Your task to perform on an android device: turn off translation in the chrome app Image 0: 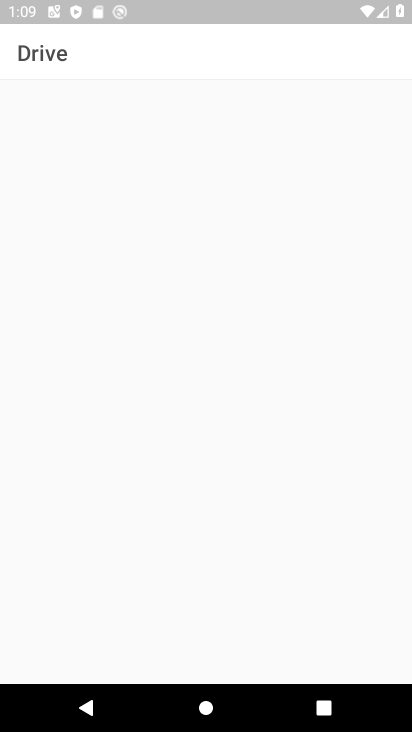
Step 0: press home button
Your task to perform on an android device: turn off translation in the chrome app Image 1: 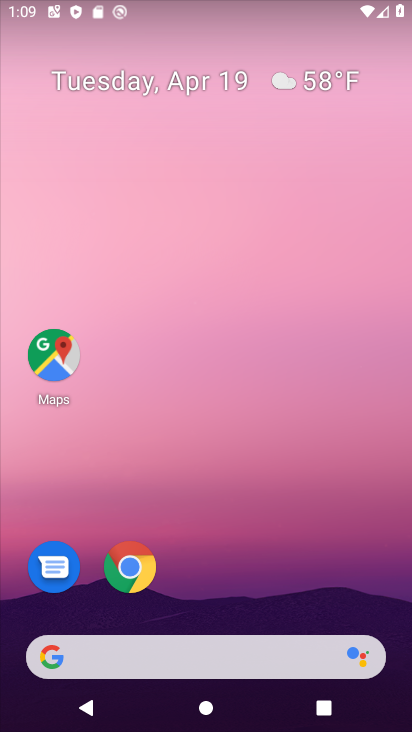
Step 1: click (130, 563)
Your task to perform on an android device: turn off translation in the chrome app Image 2: 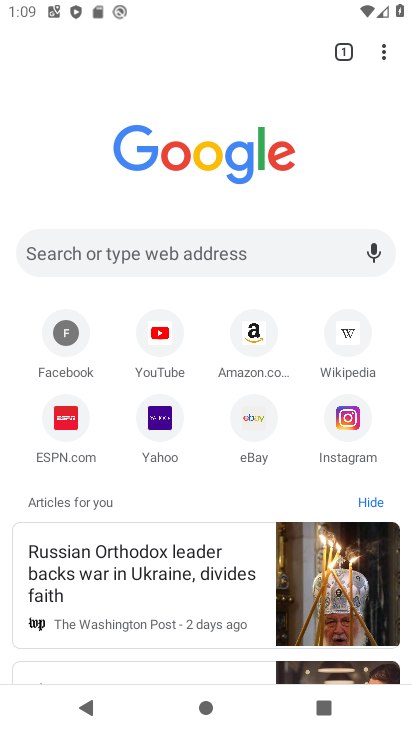
Step 2: click (386, 49)
Your task to perform on an android device: turn off translation in the chrome app Image 3: 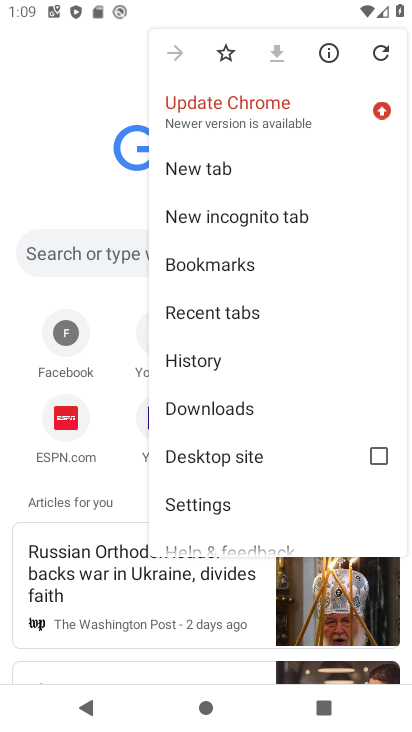
Step 3: click (220, 515)
Your task to perform on an android device: turn off translation in the chrome app Image 4: 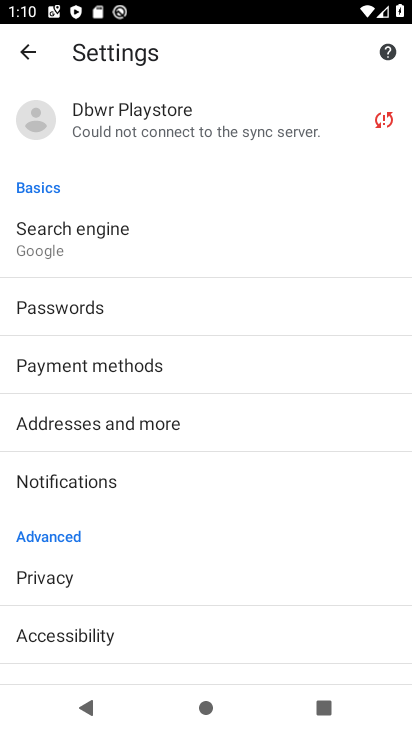
Step 4: drag from (204, 586) to (268, 228)
Your task to perform on an android device: turn off translation in the chrome app Image 5: 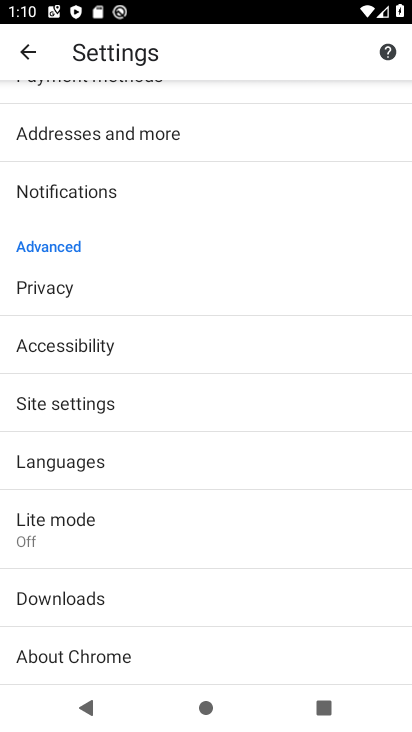
Step 5: click (39, 461)
Your task to perform on an android device: turn off translation in the chrome app Image 6: 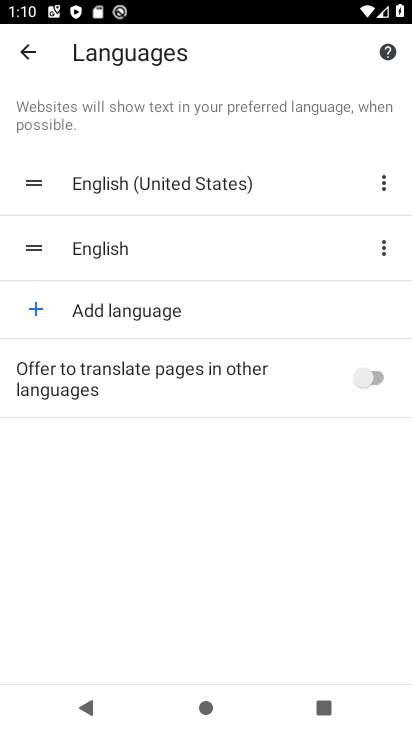
Step 6: task complete